Your task to perform on an android device: Open Google Chrome Image 0: 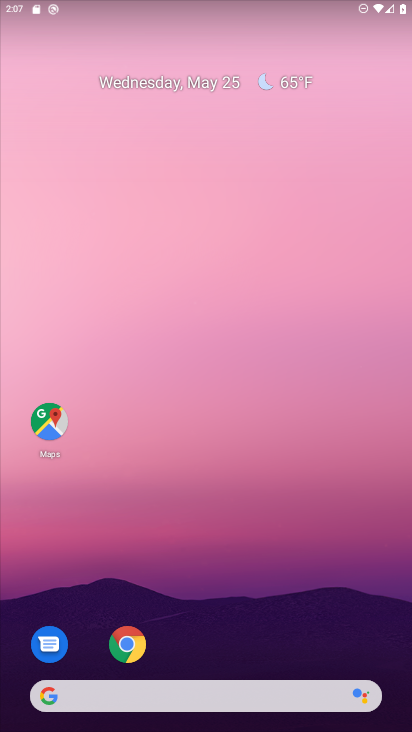
Step 0: click (132, 650)
Your task to perform on an android device: Open Google Chrome Image 1: 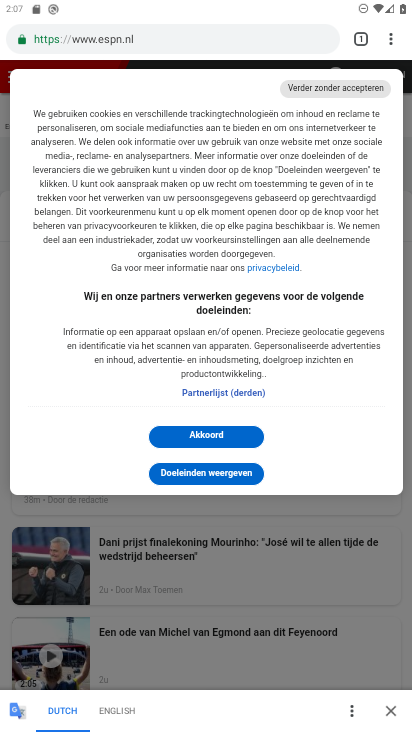
Step 1: task complete